Your task to perform on an android device: Go to accessibility settings Image 0: 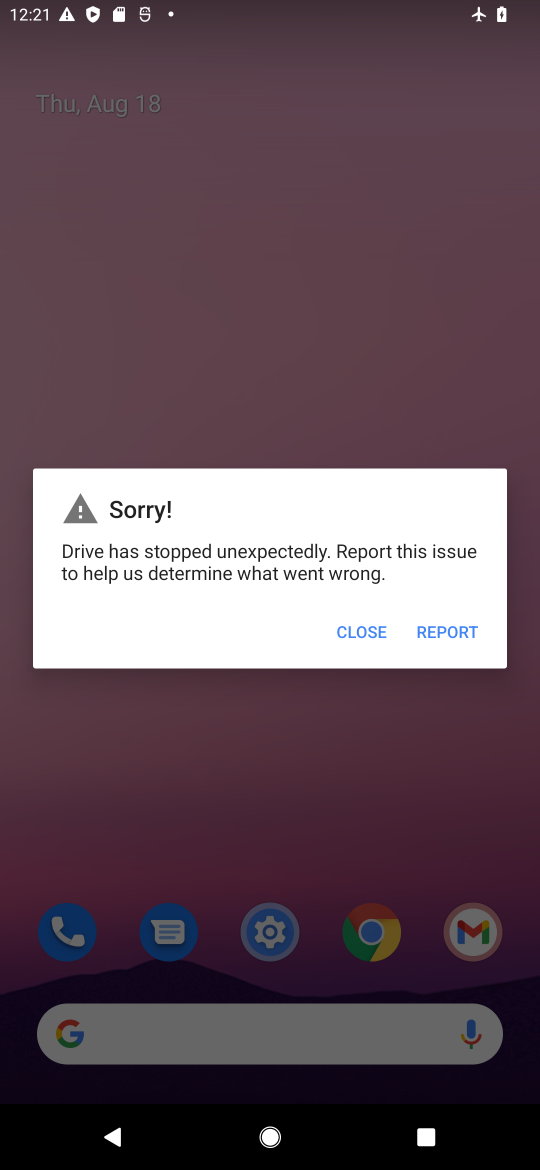
Step 0: press home button
Your task to perform on an android device: Go to accessibility settings Image 1: 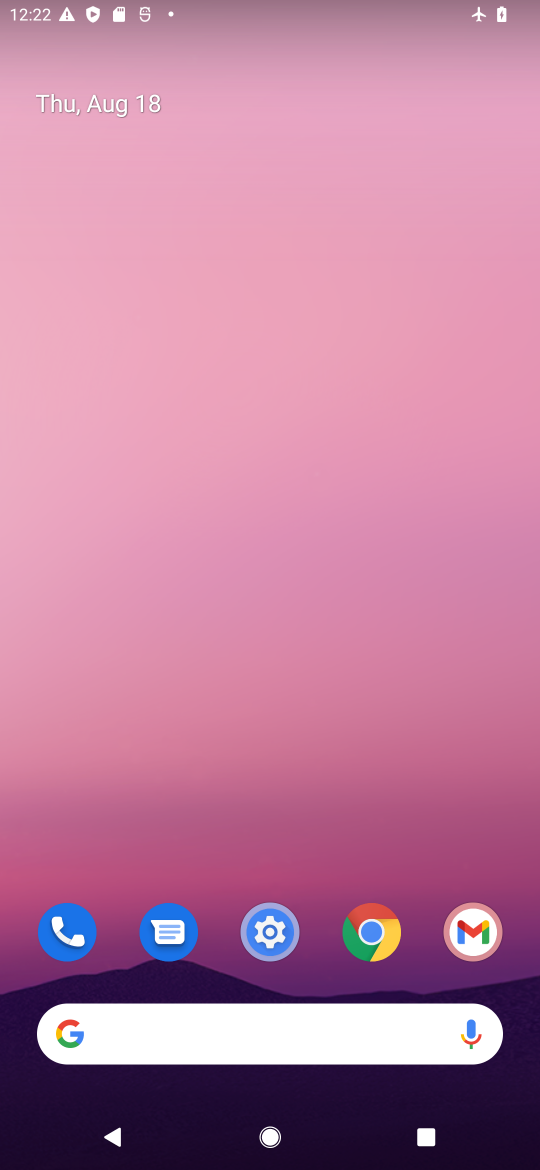
Step 1: click (272, 920)
Your task to perform on an android device: Go to accessibility settings Image 2: 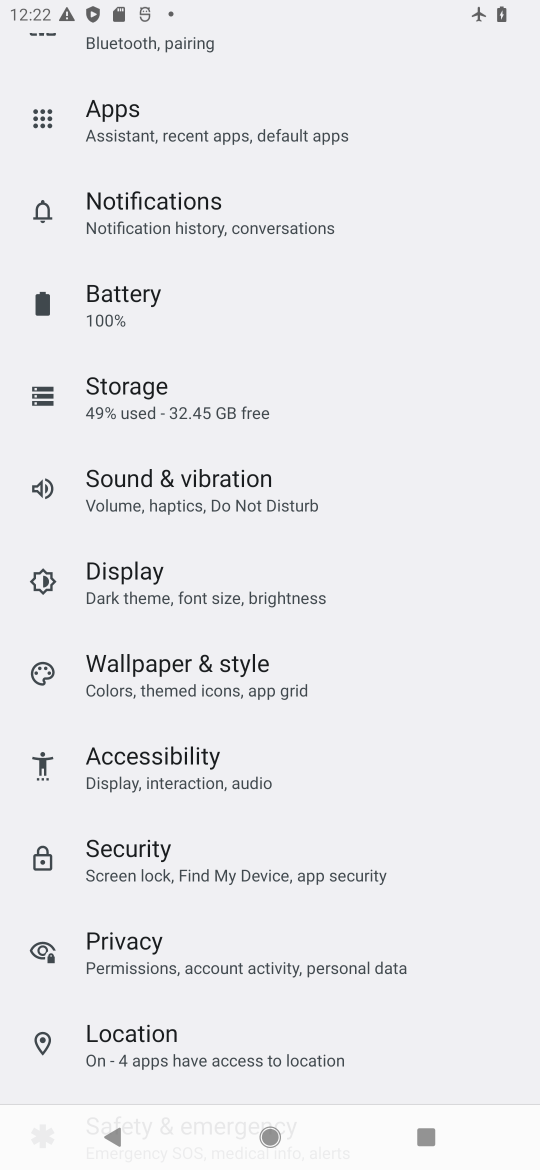
Step 2: click (173, 759)
Your task to perform on an android device: Go to accessibility settings Image 3: 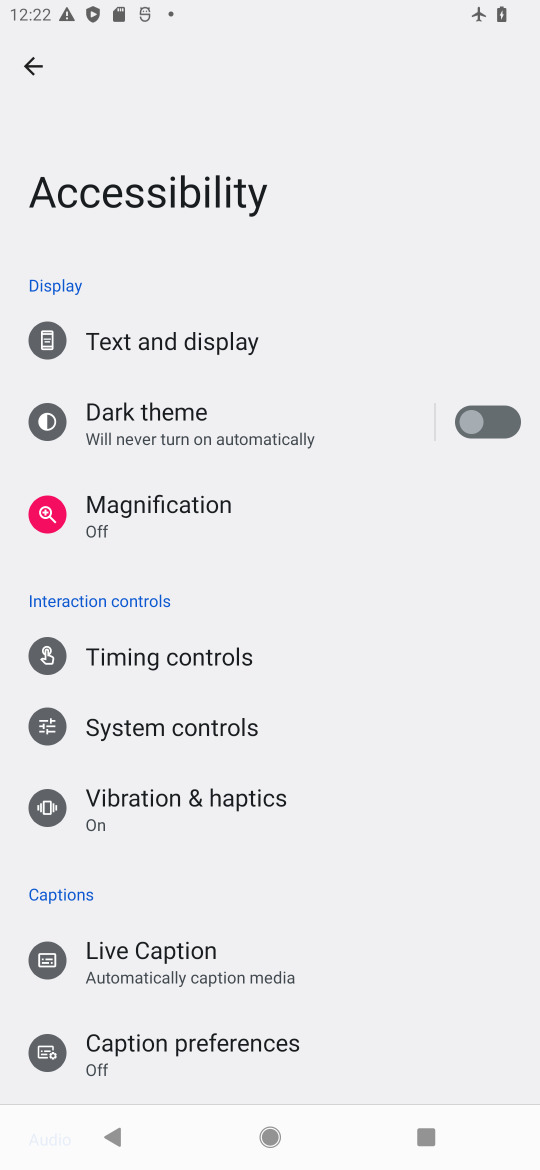
Step 3: task complete